Your task to perform on an android device: Open Youtube and go to the subscriptions tab Image 0: 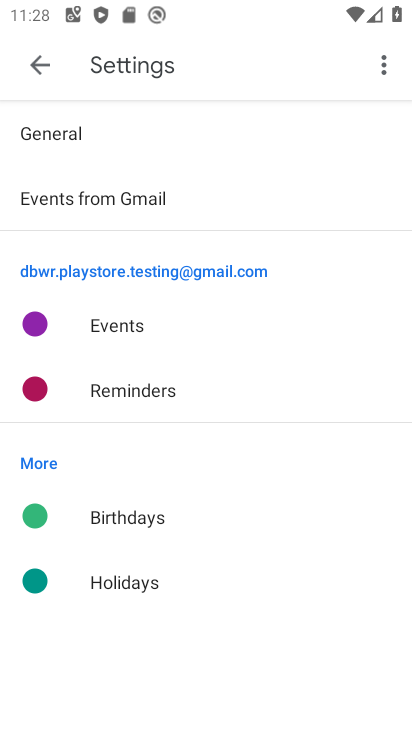
Step 0: press home button
Your task to perform on an android device: Open Youtube and go to the subscriptions tab Image 1: 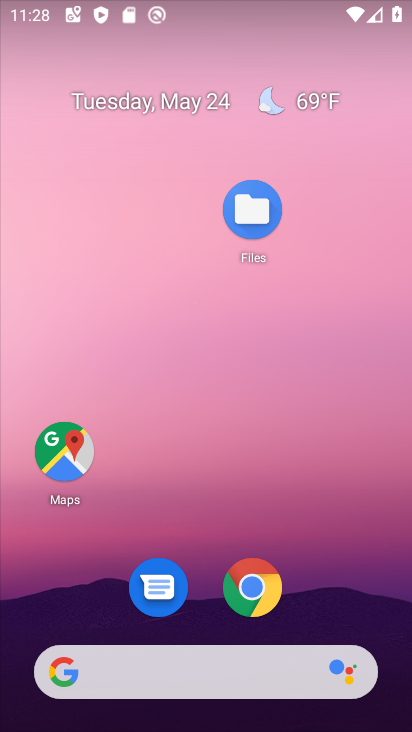
Step 1: drag from (357, 582) to (88, 175)
Your task to perform on an android device: Open Youtube and go to the subscriptions tab Image 2: 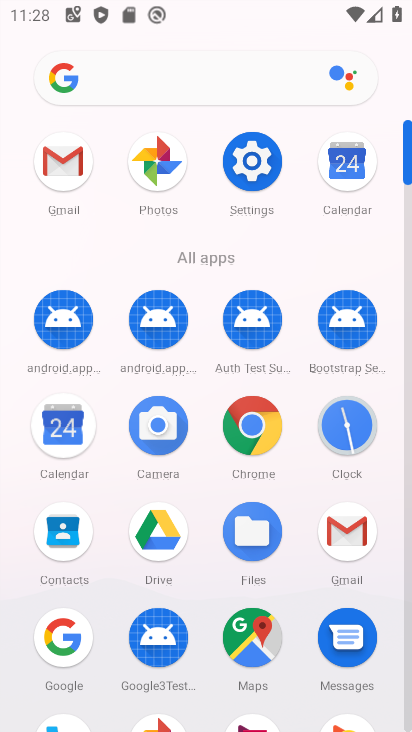
Step 2: drag from (307, 548) to (313, 339)
Your task to perform on an android device: Open Youtube and go to the subscriptions tab Image 3: 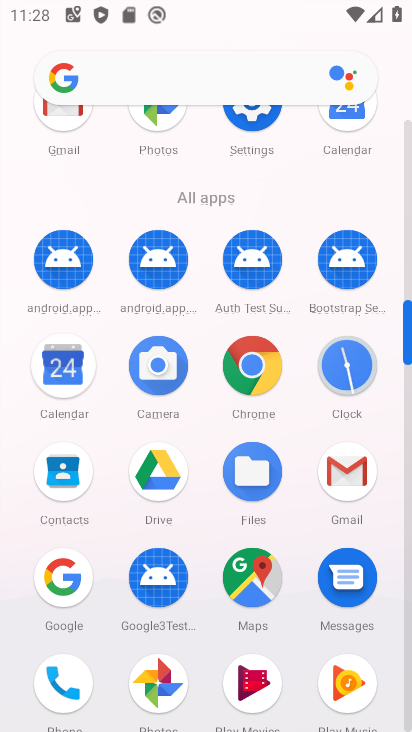
Step 3: drag from (301, 546) to (273, 380)
Your task to perform on an android device: Open Youtube and go to the subscriptions tab Image 4: 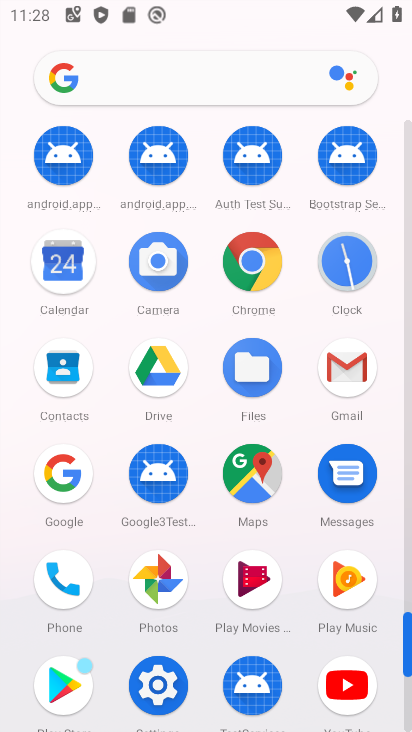
Step 4: click (345, 688)
Your task to perform on an android device: Open Youtube and go to the subscriptions tab Image 5: 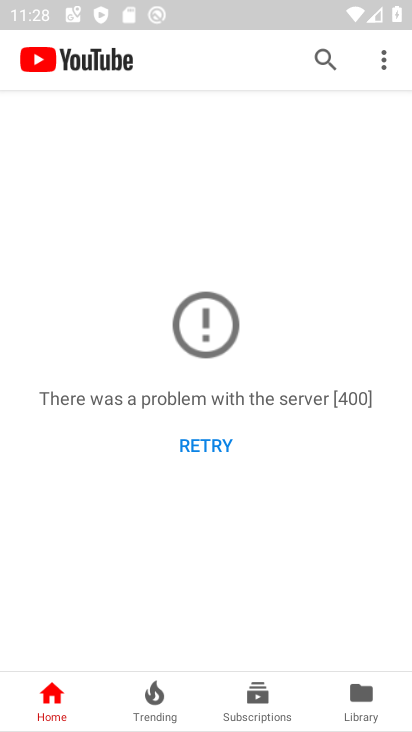
Step 5: click (264, 700)
Your task to perform on an android device: Open Youtube and go to the subscriptions tab Image 6: 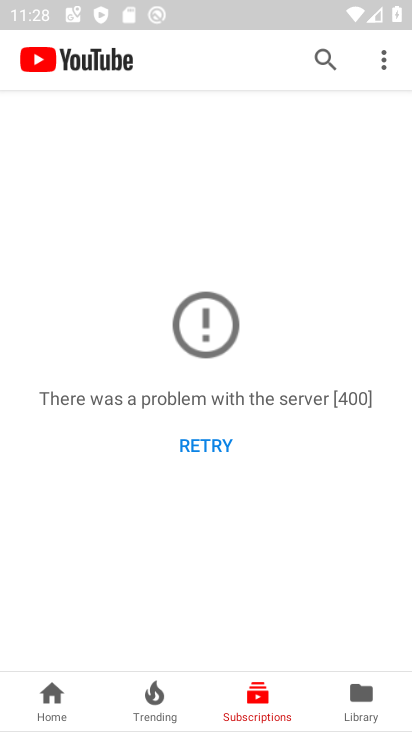
Step 6: task complete